Your task to perform on an android device: Go to accessibility settings Image 0: 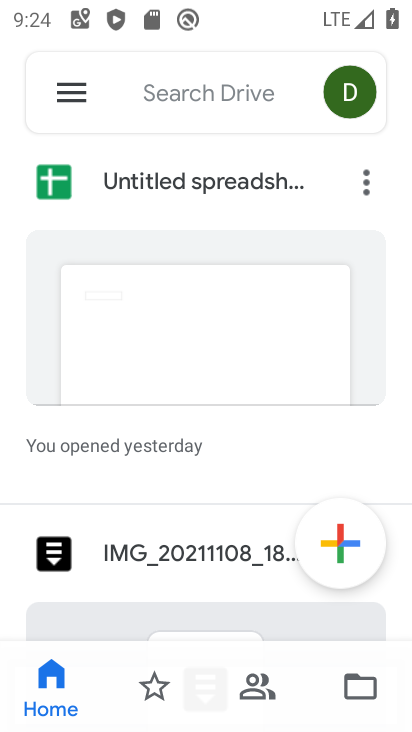
Step 0: press home button
Your task to perform on an android device: Go to accessibility settings Image 1: 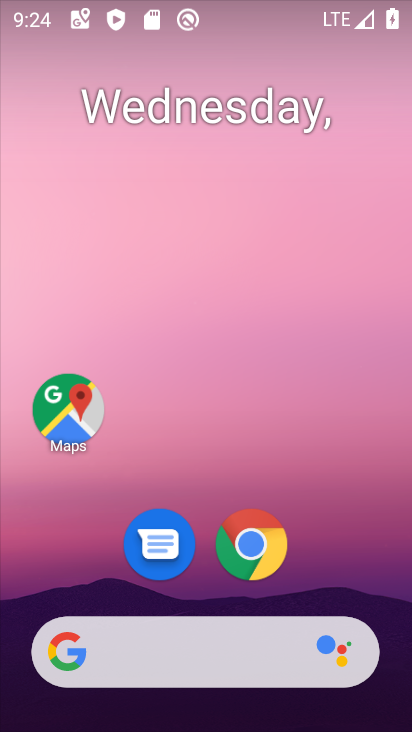
Step 1: drag from (215, 605) to (388, 122)
Your task to perform on an android device: Go to accessibility settings Image 2: 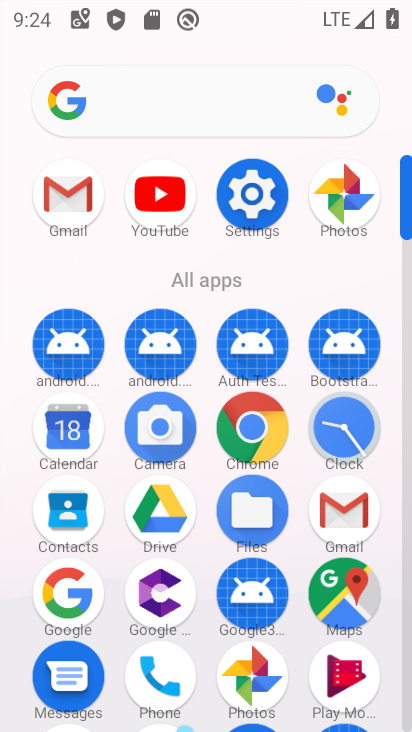
Step 2: click (260, 189)
Your task to perform on an android device: Go to accessibility settings Image 3: 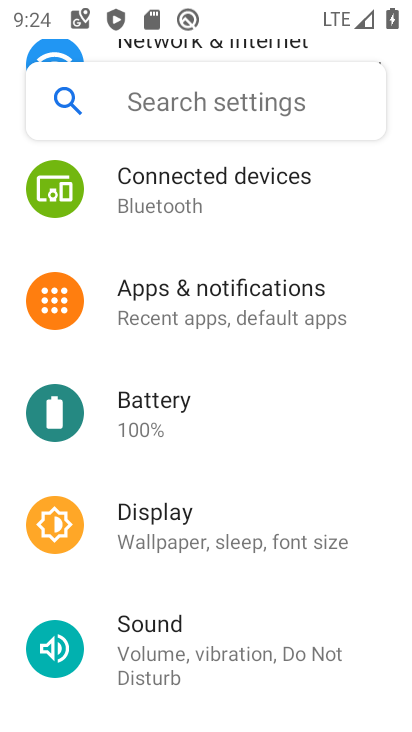
Step 3: drag from (129, 653) to (196, 164)
Your task to perform on an android device: Go to accessibility settings Image 4: 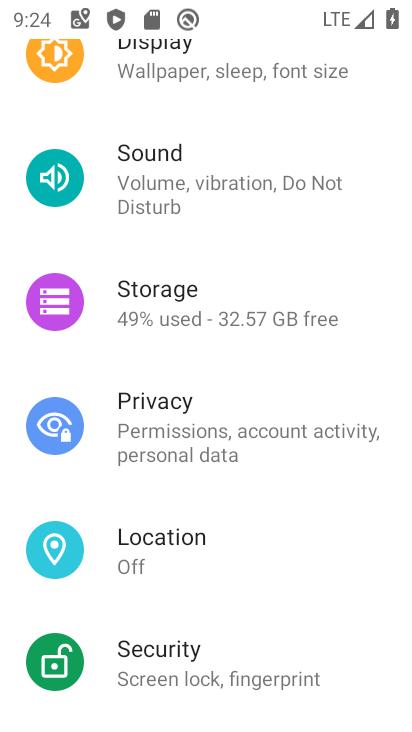
Step 4: drag from (128, 658) to (195, 368)
Your task to perform on an android device: Go to accessibility settings Image 5: 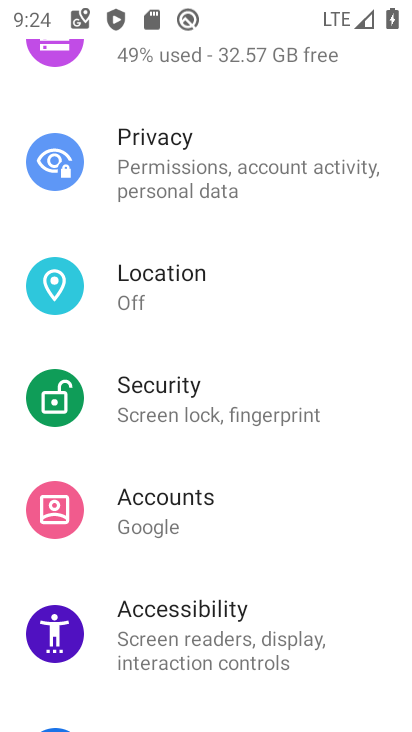
Step 5: click (86, 649)
Your task to perform on an android device: Go to accessibility settings Image 6: 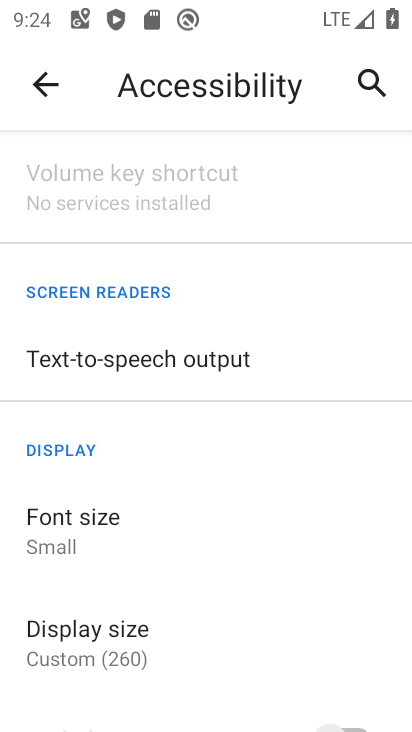
Step 6: task complete